Your task to perform on an android device: Open battery settings Image 0: 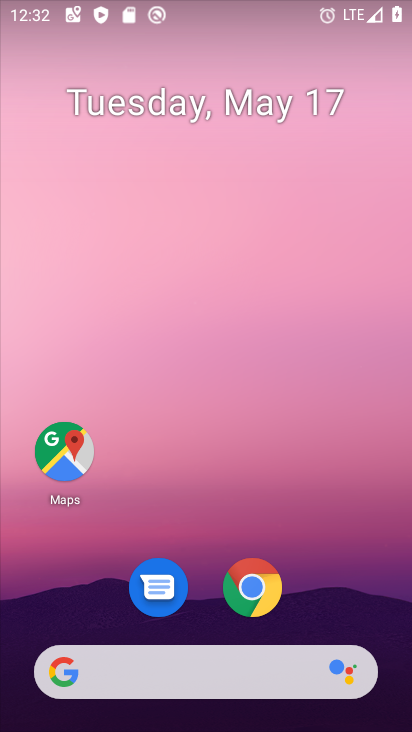
Step 0: drag from (385, 666) to (319, 115)
Your task to perform on an android device: Open battery settings Image 1: 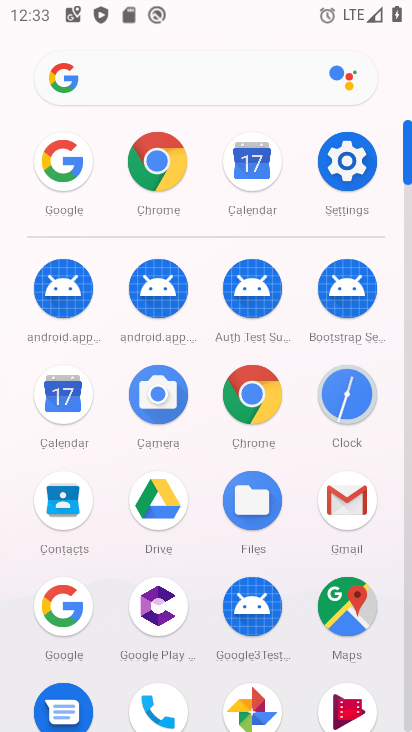
Step 1: click (348, 170)
Your task to perform on an android device: Open battery settings Image 2: 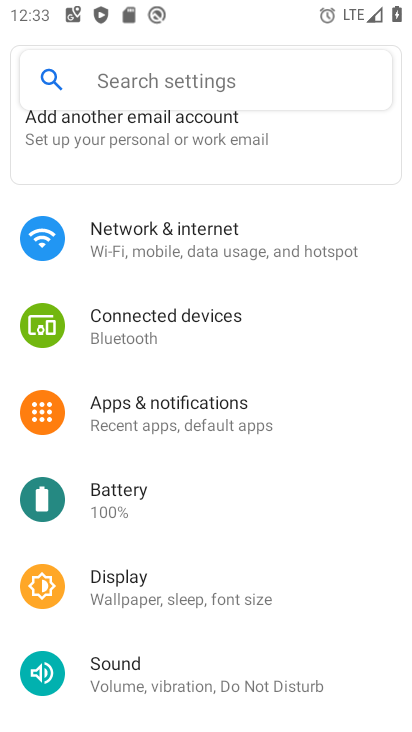
Step 2: click (164, 496)
Your task to perform on an android device: Open battery settings Image 3: 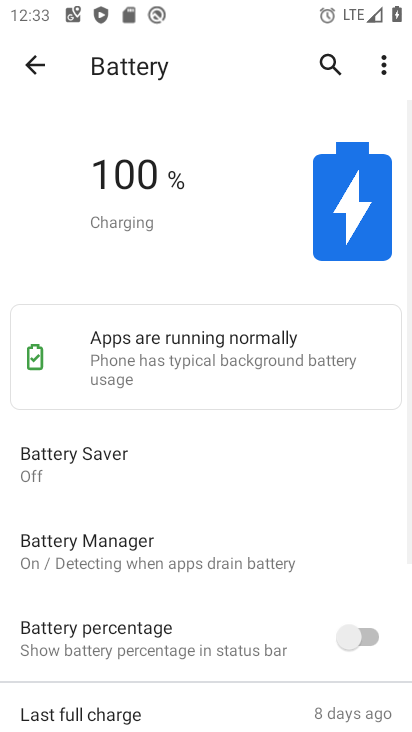
Step 3: task complete